Your task to perform on an android device: Open the map Image 0: 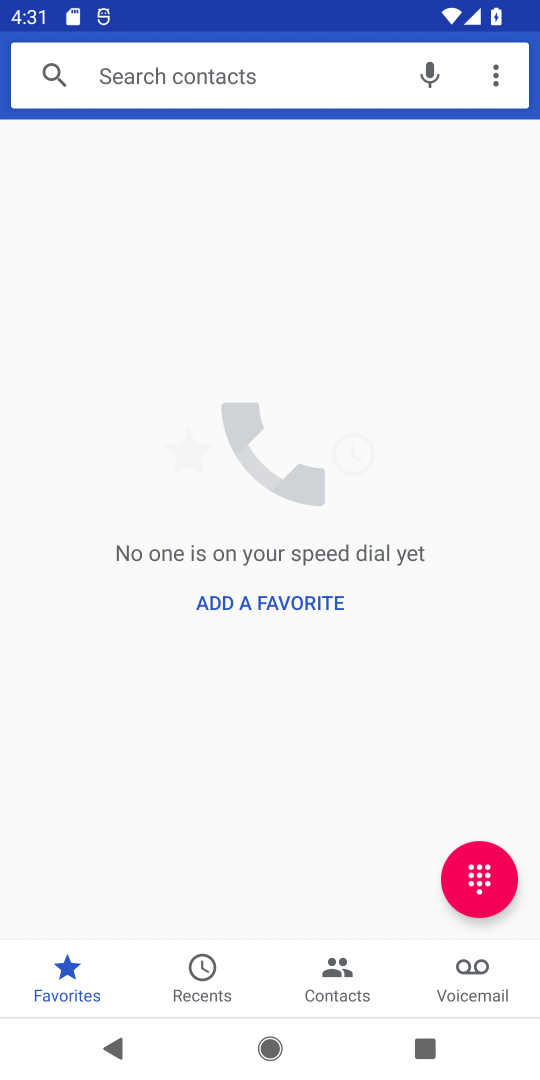
Step 0: press home button
Your task to perform on an android device: Open the map Image 1: 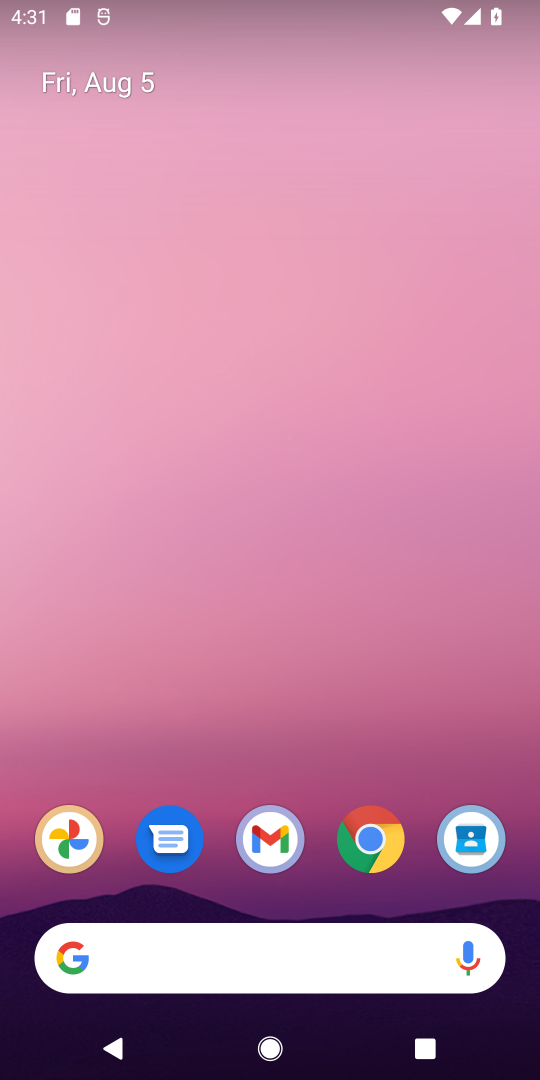
Step 1: drag from (254, 732) to (270, 162)
Your task to perform on an android device: Open the map Image 2: 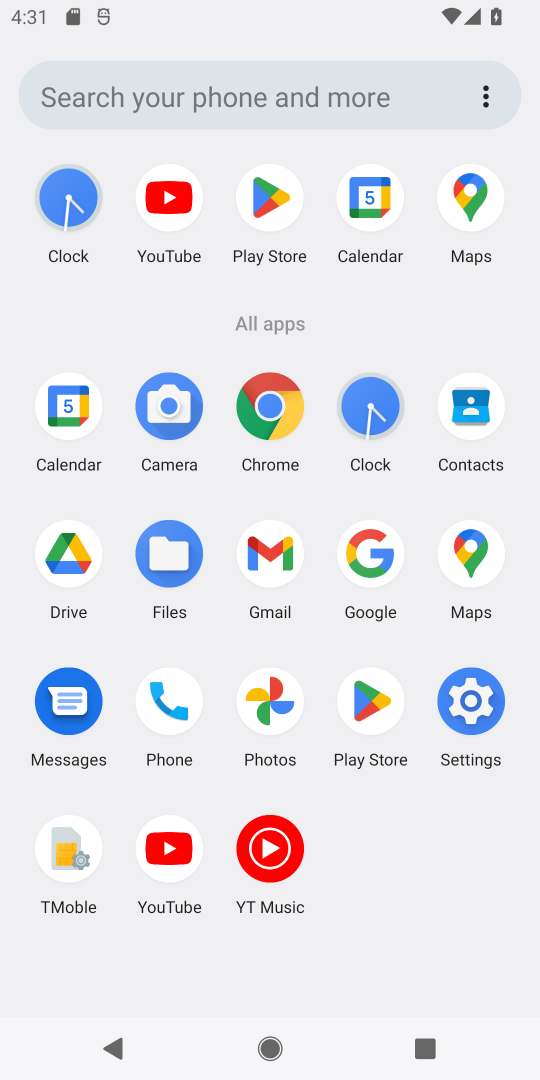
Step 2: click (460, 527)
Your task to perform on an android device: Open the map Image 3: 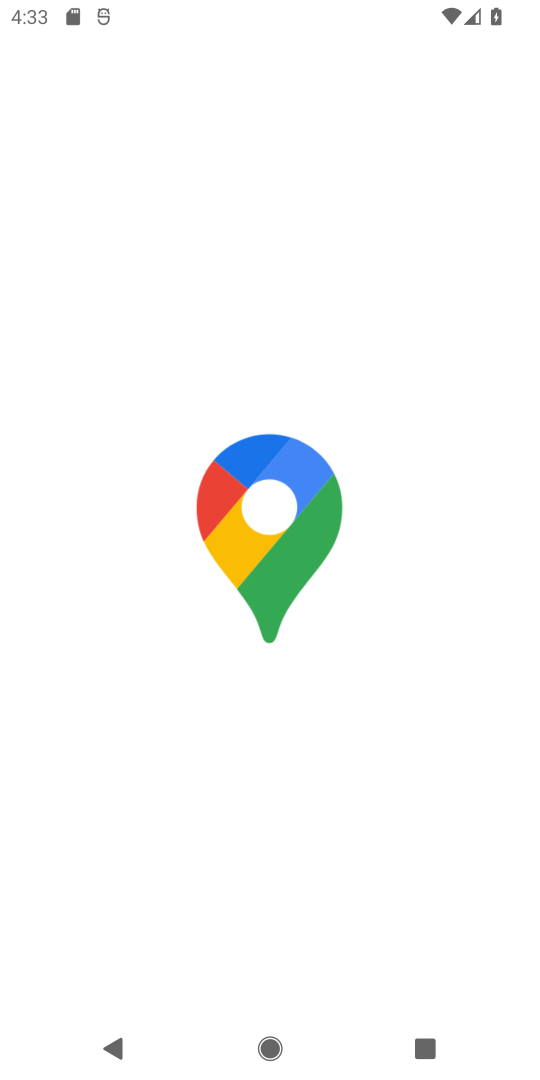
Step 3: task complete